Your task to perform on an android device: Open location settings Image 0: 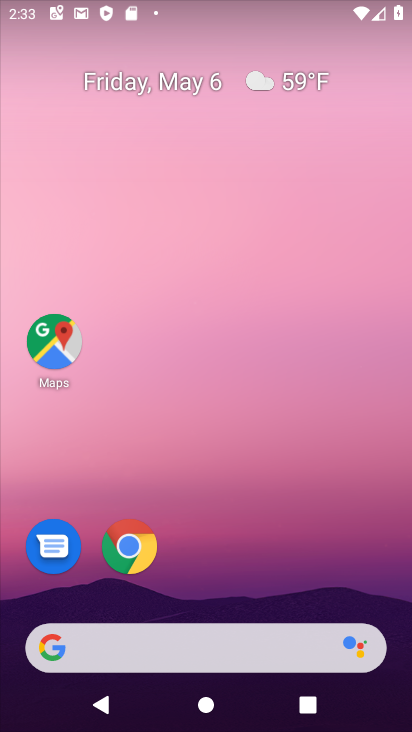
Step 0: drag from (251, 532) to (250, 153)
Your task to perform on an android device: Open location settings Image 1: 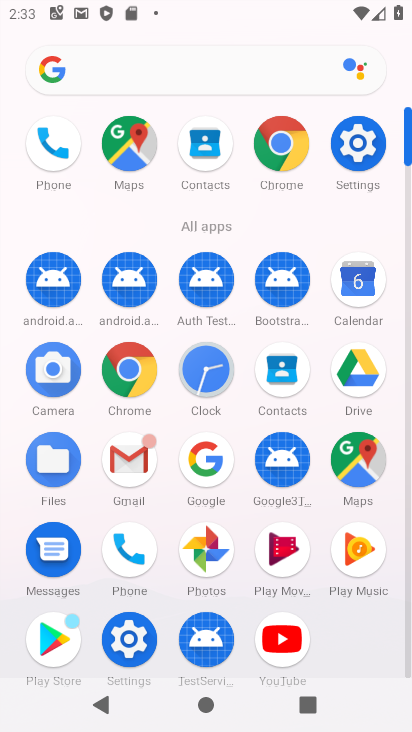
Step 1: click (364, 143)
Your task to perform on an android device: Open location settings Image 2: 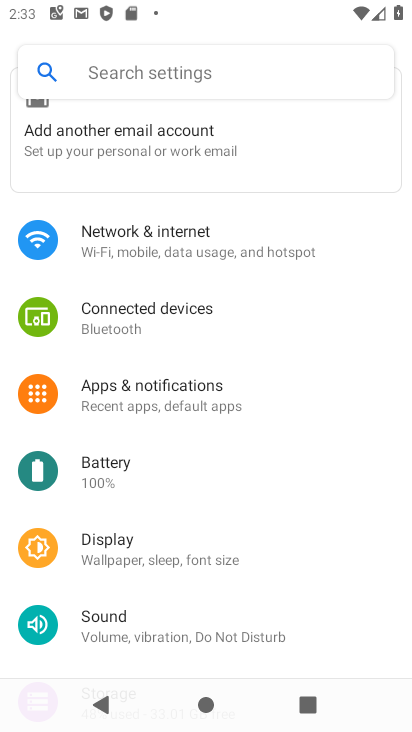
Step 2: drag from (179, 549) to (212, 228)
Your task to perform on an android device: Open location settings Image 3: 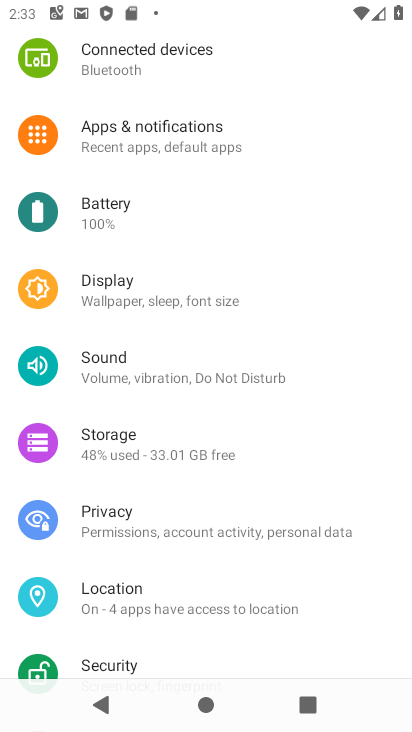
Step 3: click (163, 600)
Your task to perform on an android device: Open location settings Image 4: 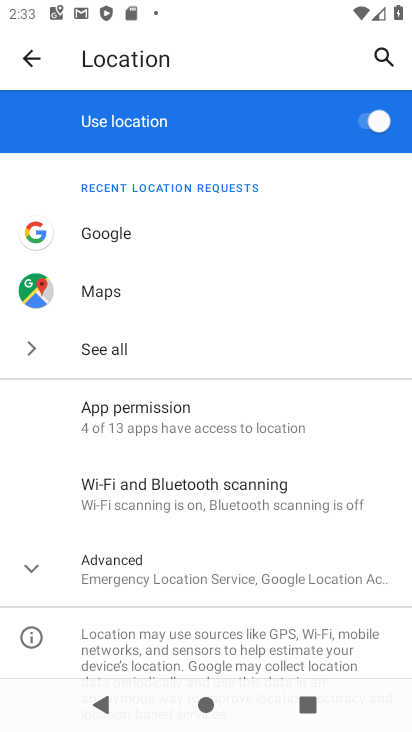
Step 4: task complete